Your task to perform on an android device: Search for Italian restaurants on Maps Image 0: 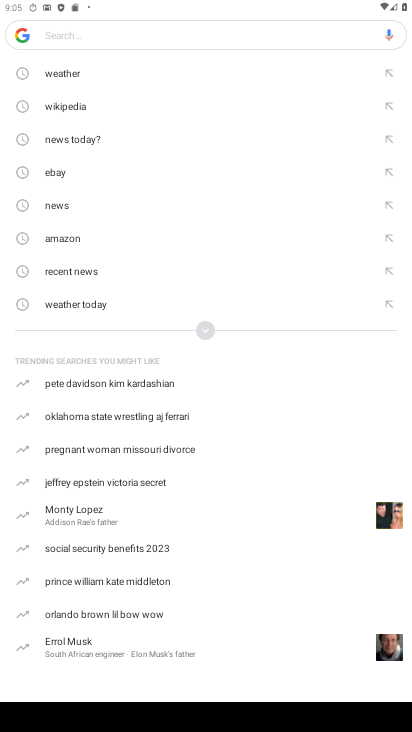
Step 0: press home button
Your task to perform on an android device: Search for Italian restaurants on Maps Image 1: 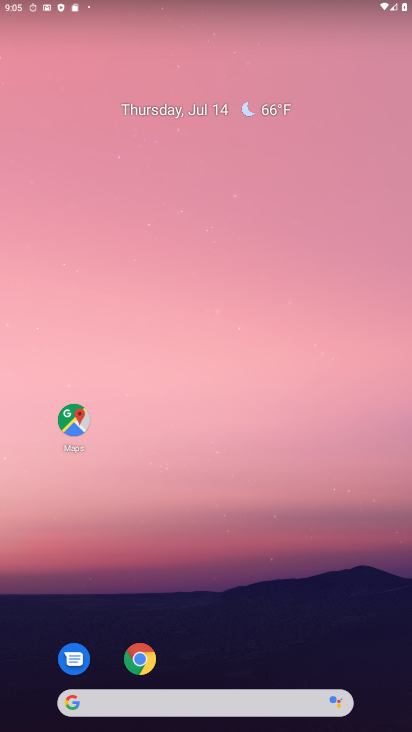
Step 1: drag from (281, 634) to (86, 9)
Your task to perform on an android device: Search for Italian restaurants on Maps Image 2: 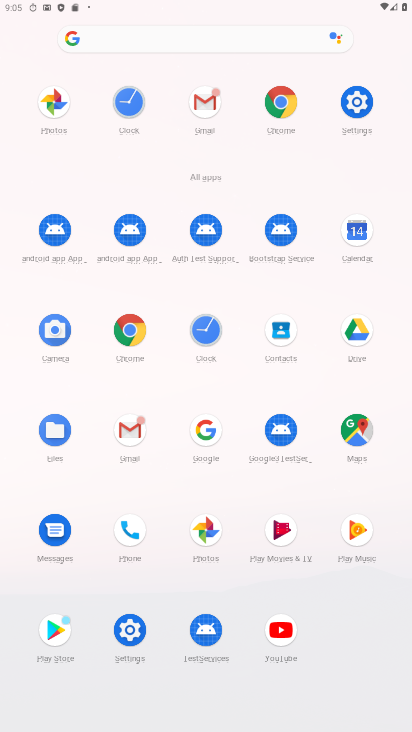
Step 2: click (356, 436)
Your task to perform on an android device: Search for Italian restaurants on Maps Image 3: 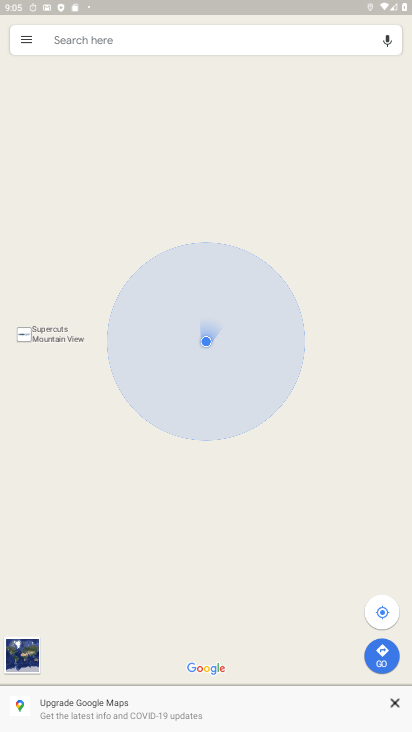
Step 3: press back button
Your task to perform on an android device: Search for Italian restaurants on Maps Image 4: 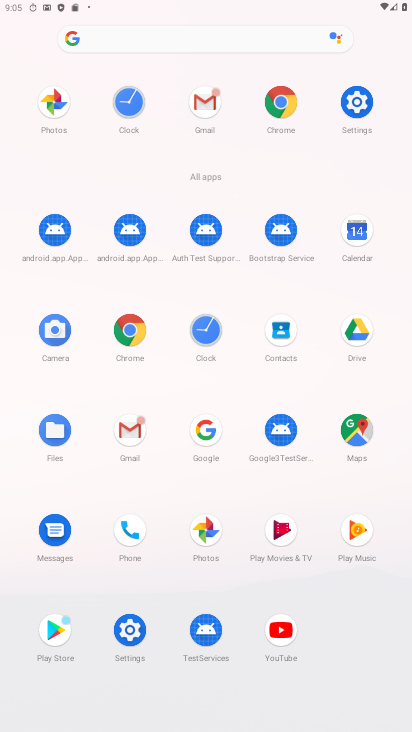
Step 4: click (355, 442)
Your task to perform on an android device: Search for Italian restaurants on Maps Image 5: 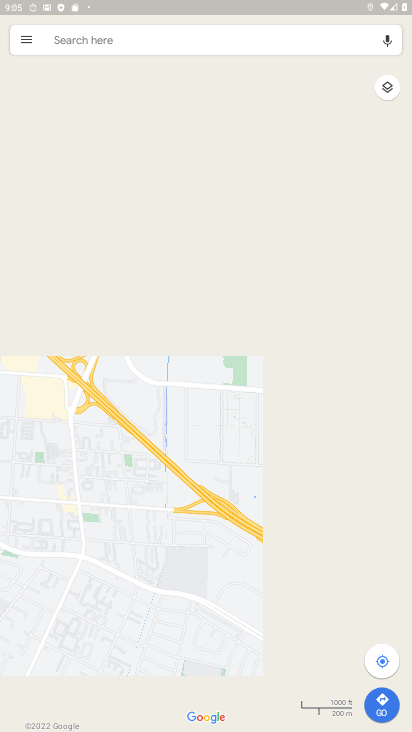
Step 5: click (135, 45)
Your task to perform on an android device: Search for Italian restaurants on Maps Image 6: 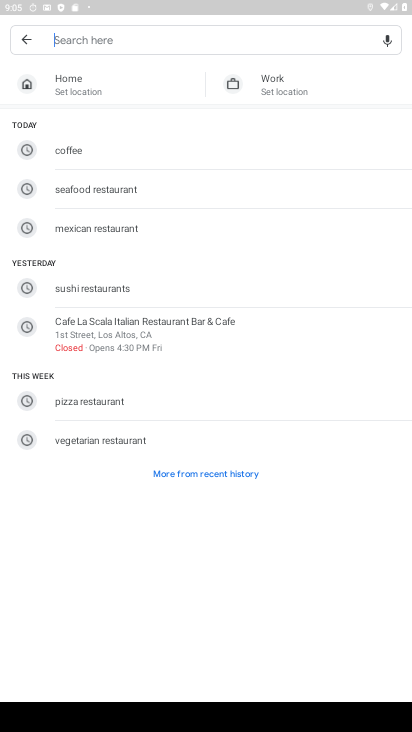
Step 6: type " Italian restaurants"
Your task to perform on an android device: Search for Italian restaurants on Maps Image 7: 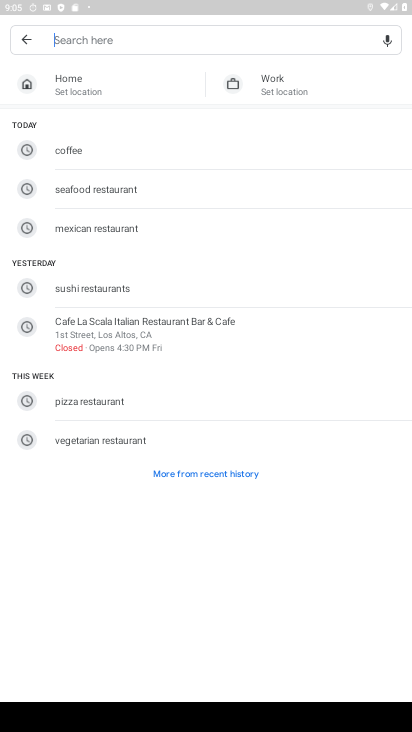
Step 7: click (116, 38)
Your task to perform on an android device: Search for Italian restaurants on Maps Image 8: 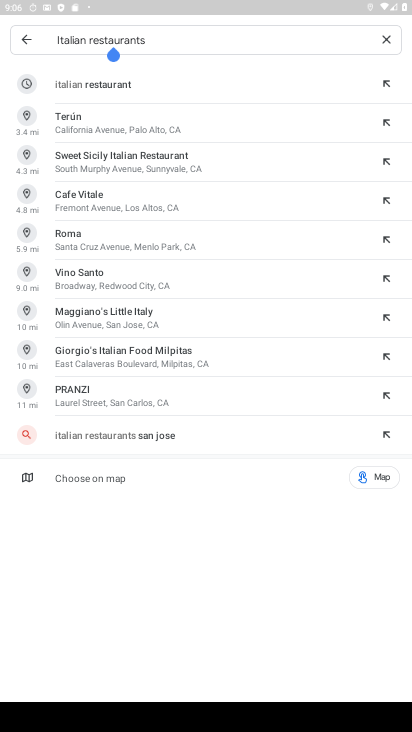
Step 8: click (97, 84)
Your task to perform on an android device: Search for Italian restaurants on Maps Image 9: 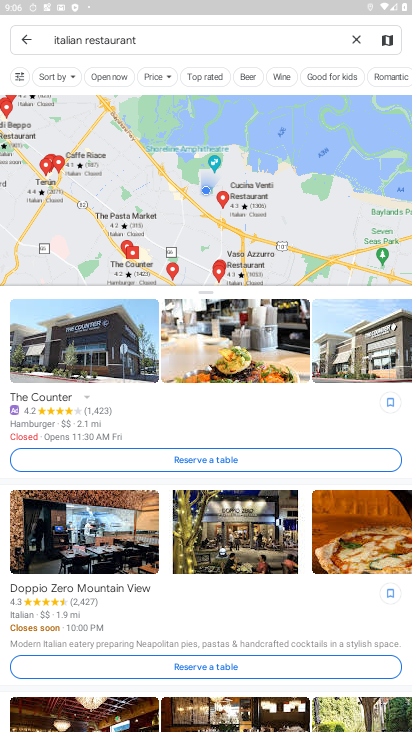
Step 9: task complete